Your task to perform on an android device: see tabs open on other devices in the chrome app Image 0: 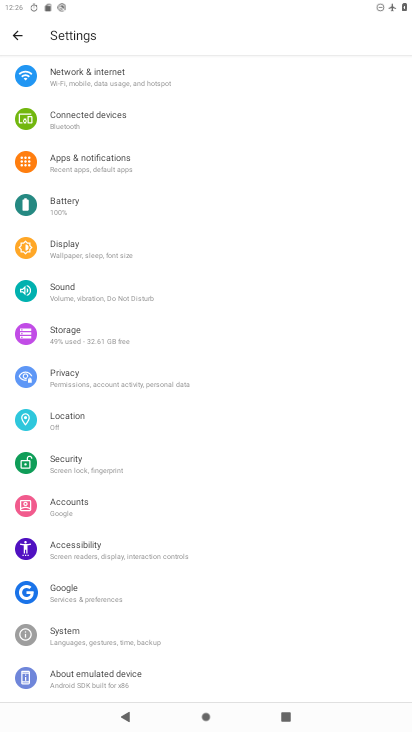
Step 0: press home button
Your task to perform on an android device: see tabs open on other devices in the chrome app Image 1: 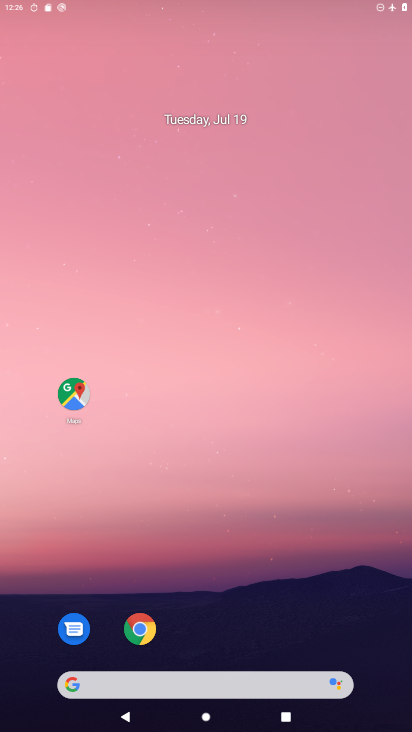
Step 1: drag from (258, 636) to (260, 70)
Your task to perform on an android device: see tabs open on other devices in the chrome app Image 2: 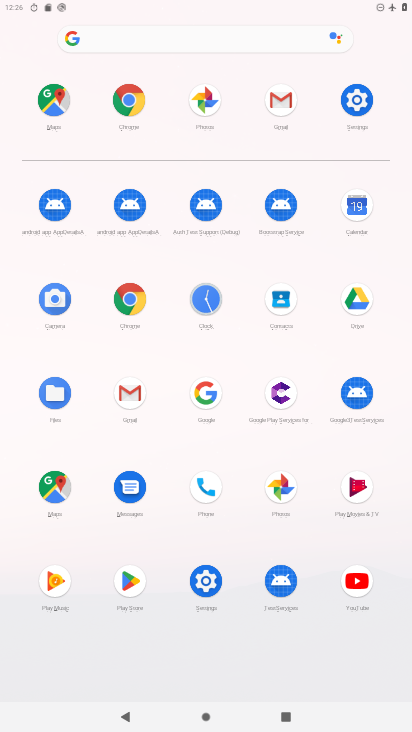
Step 2: click (130, 298)
Your task to perform on an android device: see tabs open on other devices in the chrome app Image 3: 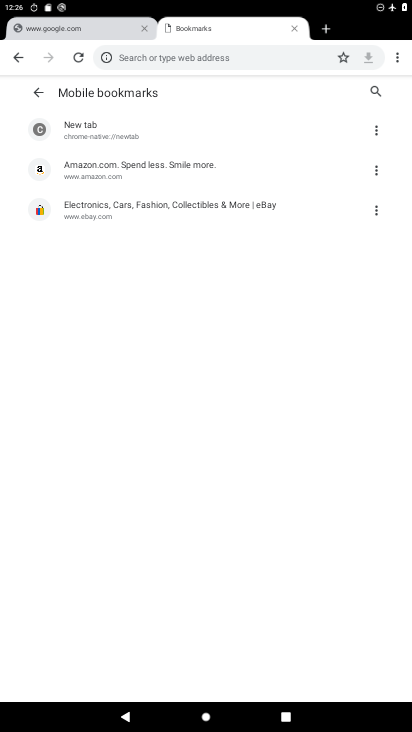
Step 3: task complete